Your task to perform on an android device: change text size in settings app Image 0: 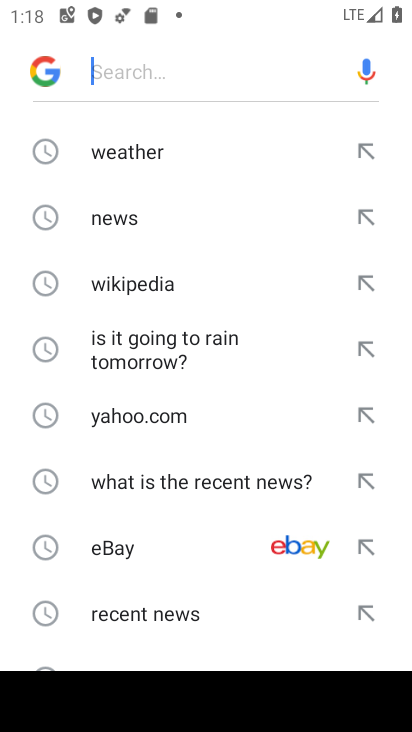
Step 0: press home button
Your task to perform on an android device: change text size in settings app Image 1: 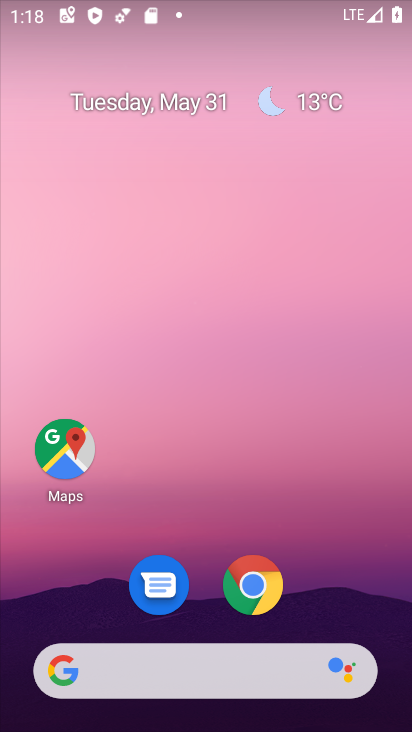
Step 1: drag from (232, 490) to (253, 5)
Your task to perform on an android device: change text size in settings app Image 2: 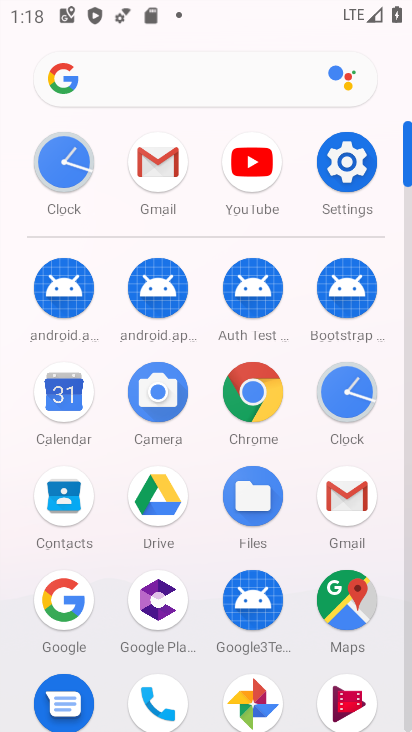
Step 2: click (342, 163)
Your task to perform on an android device: change text size in settings app Image 3: 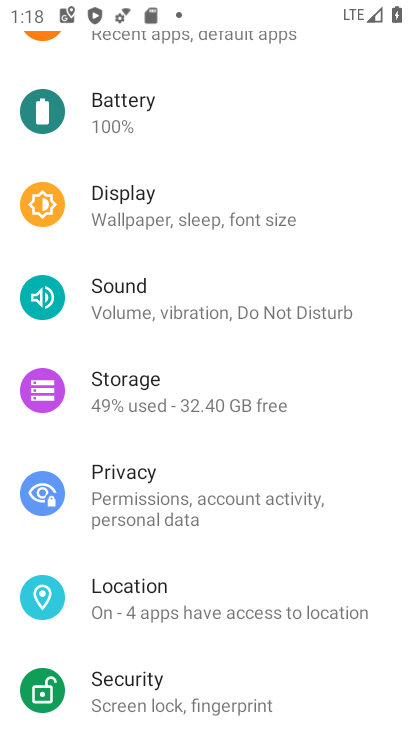
Step 3: click (239, 199)
Your task to perform on an android device: change text size in settings app Image 4: 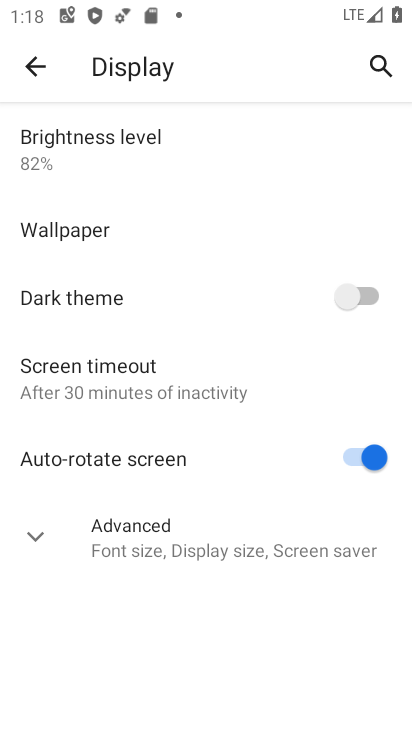
Step 4: click (38, 538)
Your task to perform on an android device: change text size in settings app Image 5: 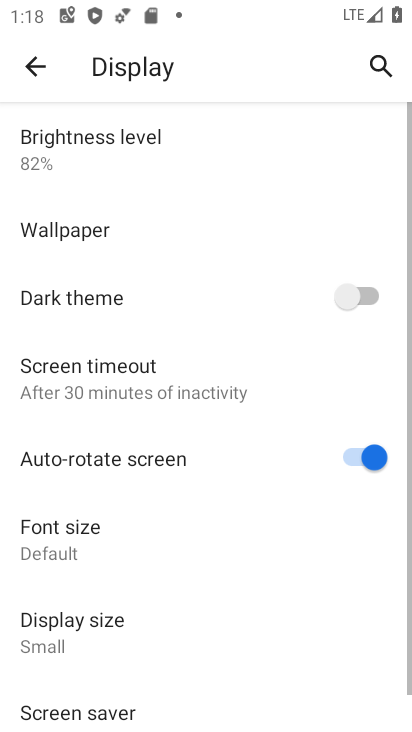
Step 5: click (122, 540)
Your task to perform on an android device: change text size in settings app Image 6: 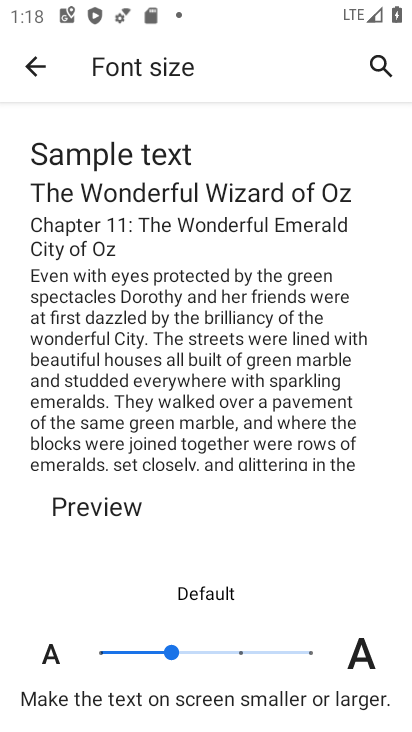
Step 6: click (232, 644)
Your task to perform on an android device: change text size in settings app Image 7: 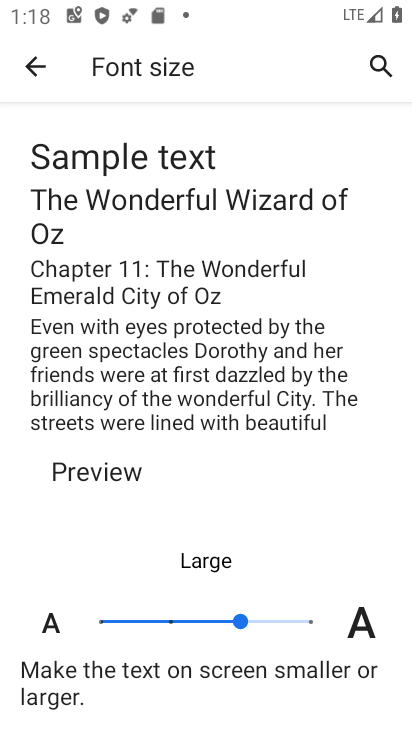
Step 7: click (39, 61)
Your task to perform on an android device: change text size in settings app Image 8: 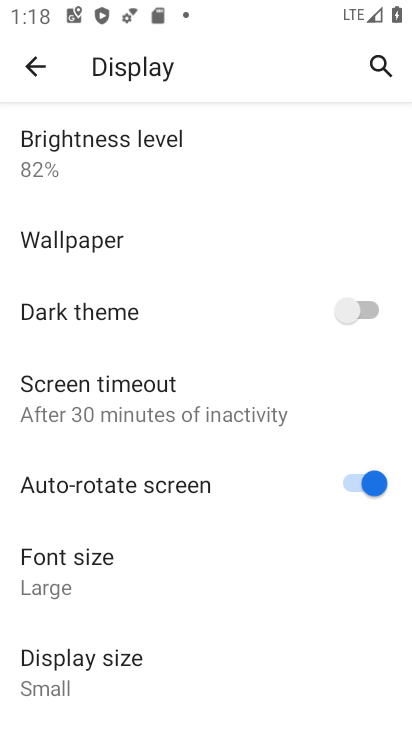
Step 8: task complete